Your task to perform on an android device: change text size in settings app Image 0: 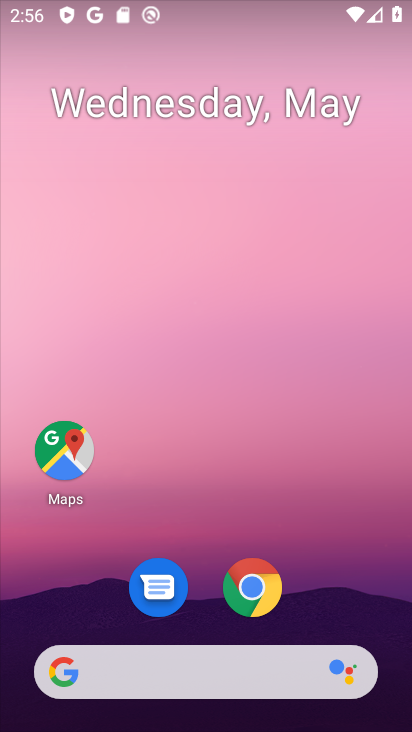
Step 0: drag from (208, 598) to (239, 194)
Your task to perform on an android device: change text size in settings app Image 1: 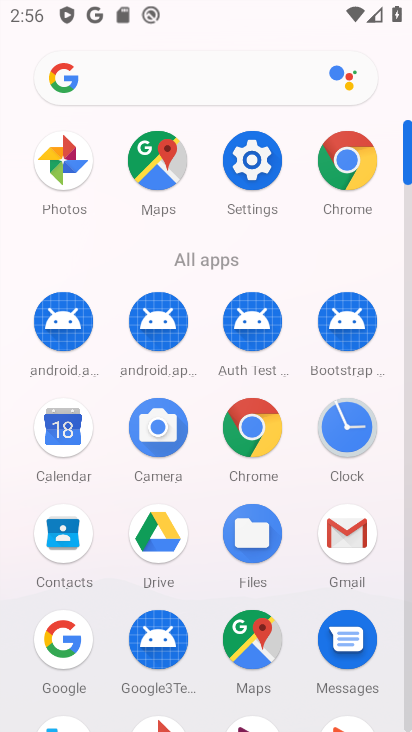
Step 1: click (251, 194)
Your task to perform on an android device: change text size in settings app Image 2: 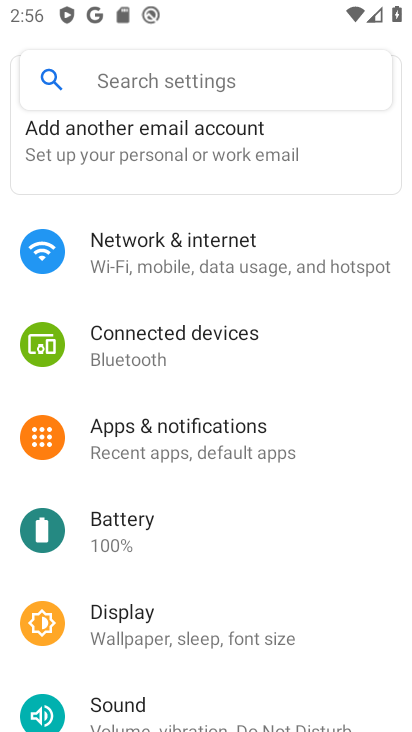
Step 2: drag from (205, 504) to (237, 333)
Your task to perform on an android device: change text size in settings app Image 3: 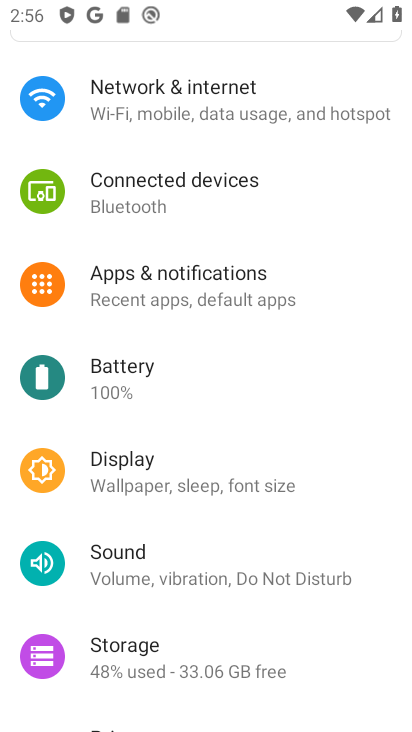
Step 3: click (192, 473)
Your task to perform on an android device: change text size in settings app Image 4: 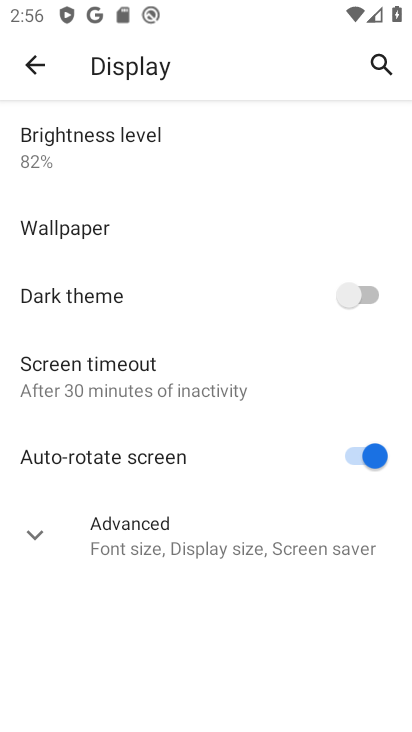
Step 4: click (170, 545)
Your task to perform on an android device: change text size in settings app Image 5: 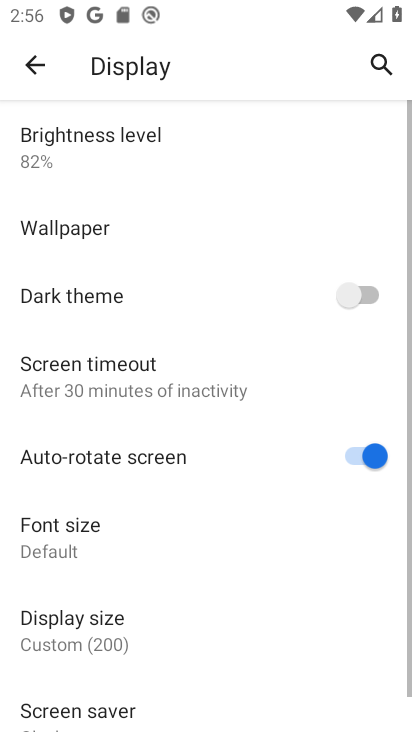
Step 5: drag from (163, 609) to (187, 511)
Your task to perform on an android device: change text size in settings app Image 6: 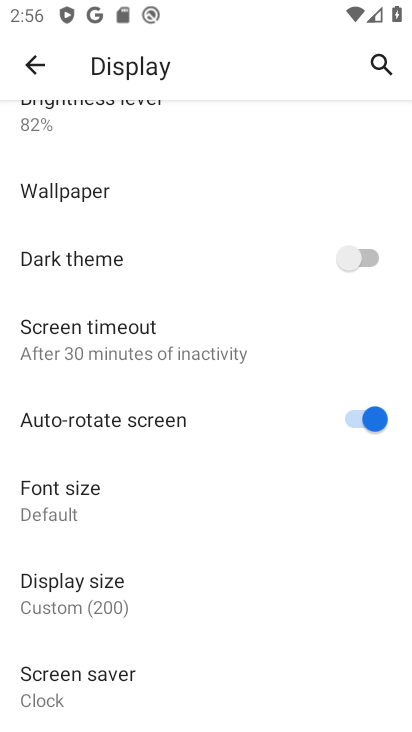
Step 6: click (114, 510)
Your task to perform on an android device: change text size in settings app Image 7: 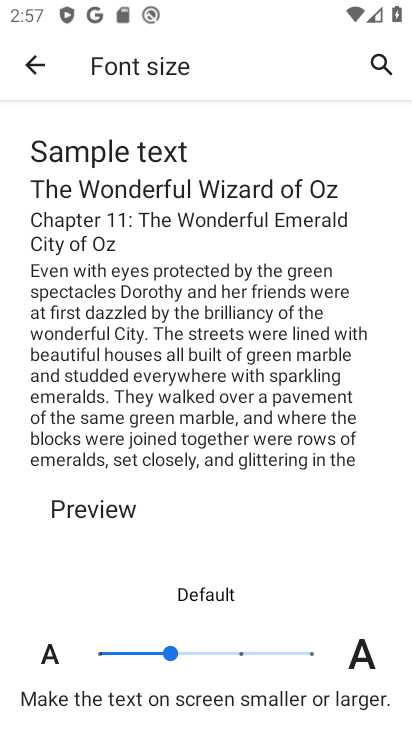
Step 7: click (243, 650)
Your task to perform on an android device: change text size in settings app Image 8: 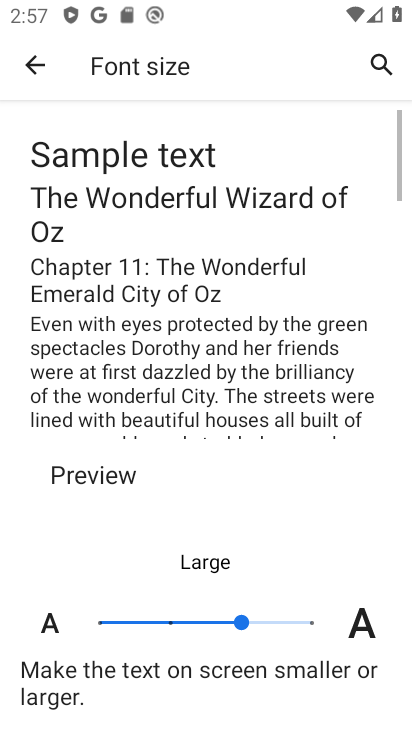
Step 8: task complete